Your task to perform on an android device: turn off javascript in the chrome app Image 0: 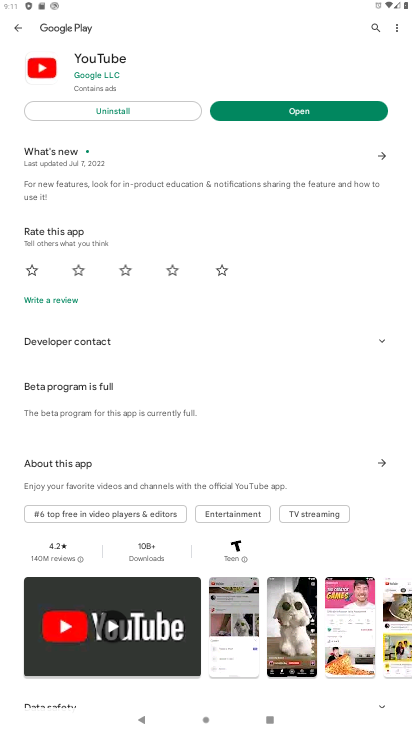
Step 0: press home button
Your task to perform on an android device: turn off javascript in the chrome app Image 1: 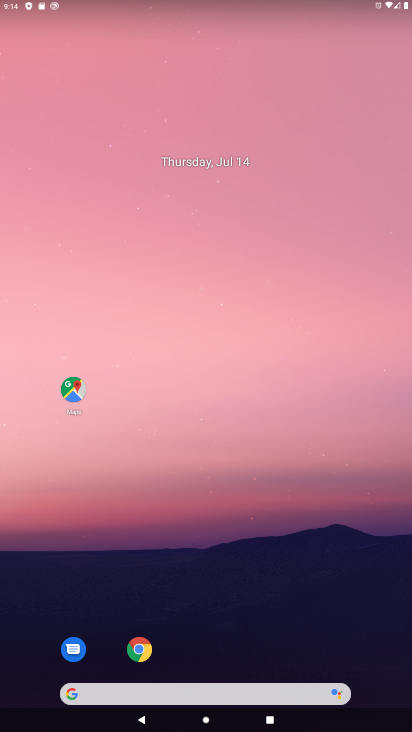
Step 1: click (138, 656)
Your task to perform on an android device: turn off javascript in the chrome app Image 2: 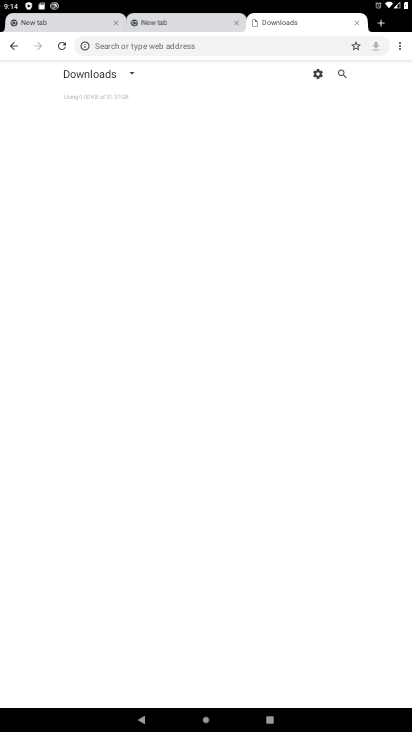
Step 2: click (394, 45)
Your task to perform on an android device: turn off javascript in the chrome app Image 3: 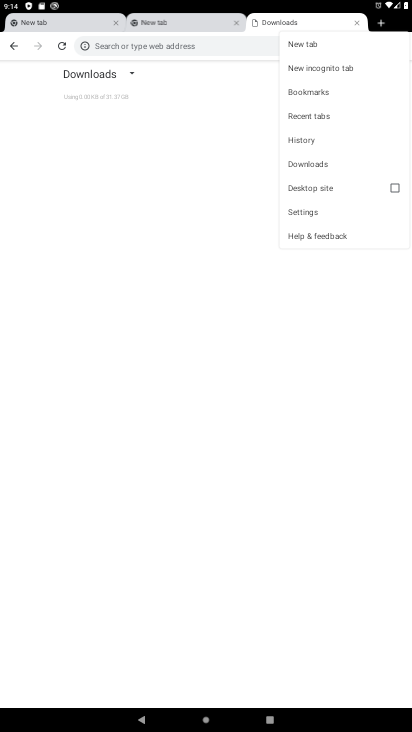
Step 3: click (314, 209)
Your task to perform on an android device: turn off javascript in the chrome app Image 4: 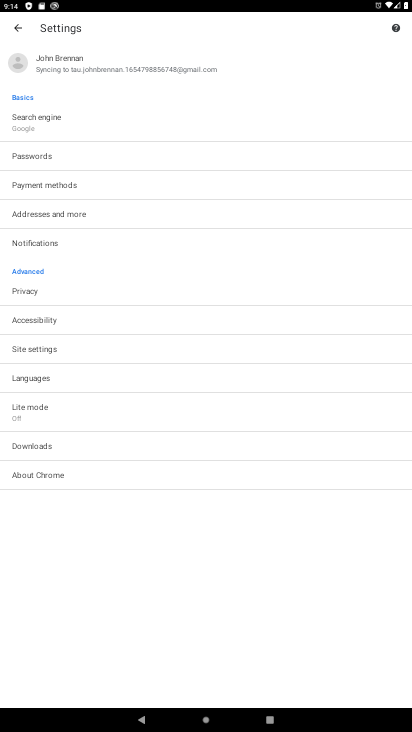
Step 4: click (69, 346)
Your task to perform on an android device: turn off javascript in the chrome app Image 5: 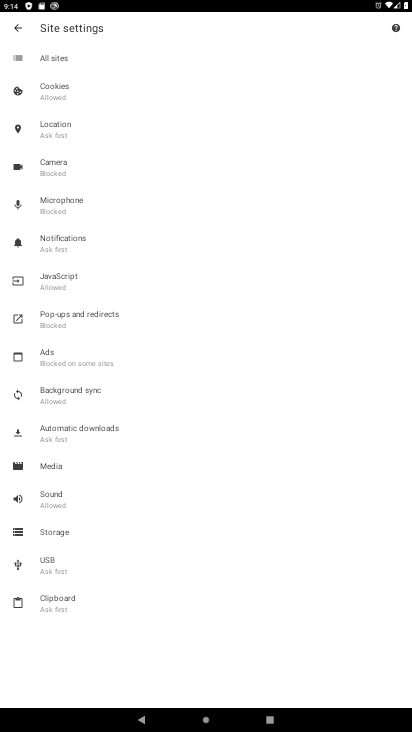
Step 5: click (69, 280)
Your task to perform on an android device: turn off javascript in the chrome app Image 6: 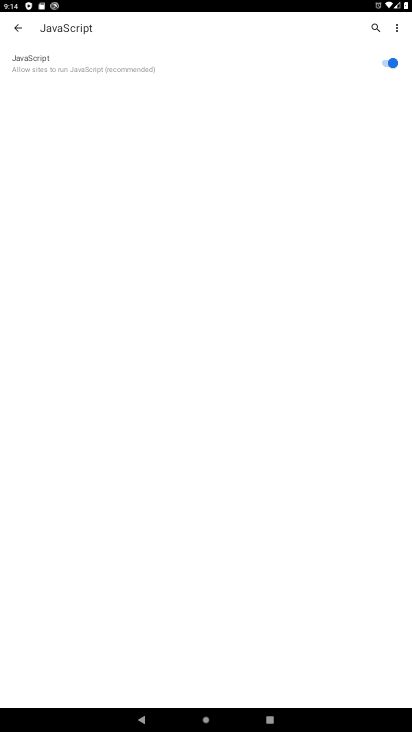
Step 6: click (398, 63)
Your task to perform on an android device: turn off javascript in the chrome app Image 7: 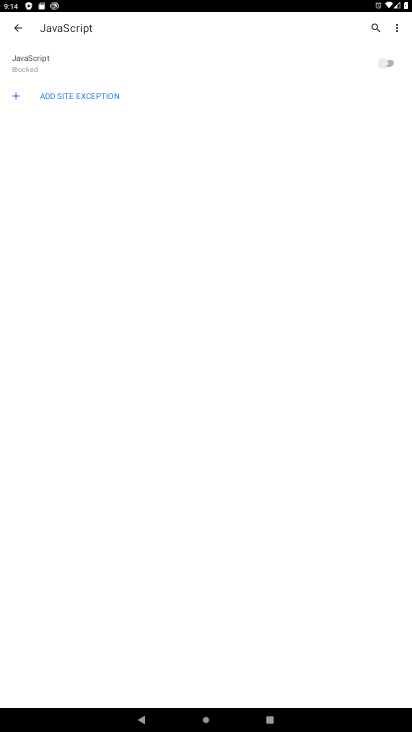
Step 7: task complete